Your task to perform on an android device: When is my next appointment? Image 0: 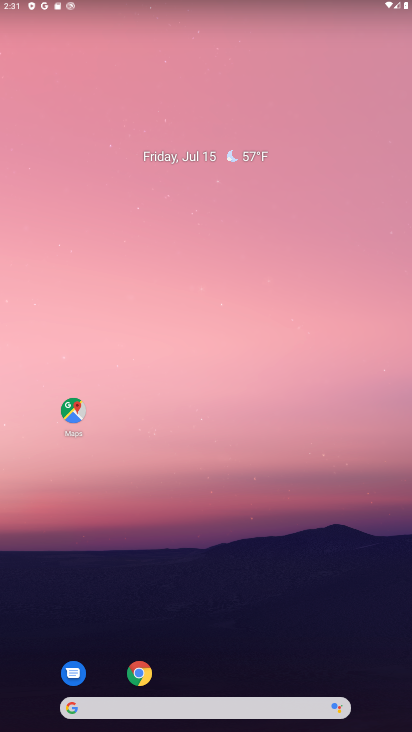
Step 0: drag from (387, 669) to (297, 201)
Your task to perform on an android device: When is my next appointment? Image 1: 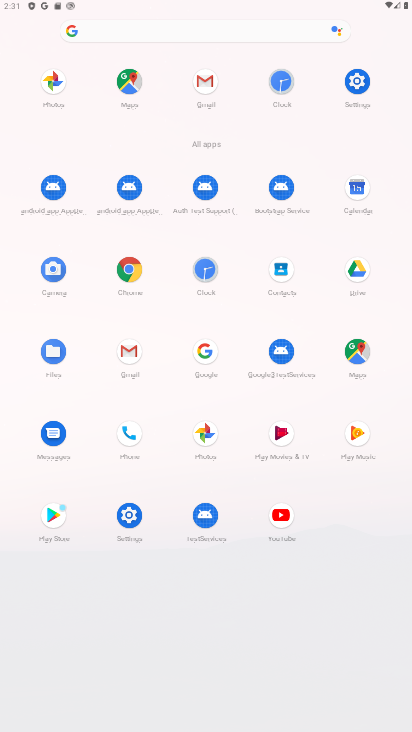
Step 1: click (359, 184)
Your task to perform on an android device: When is my next appointment? Image 2: 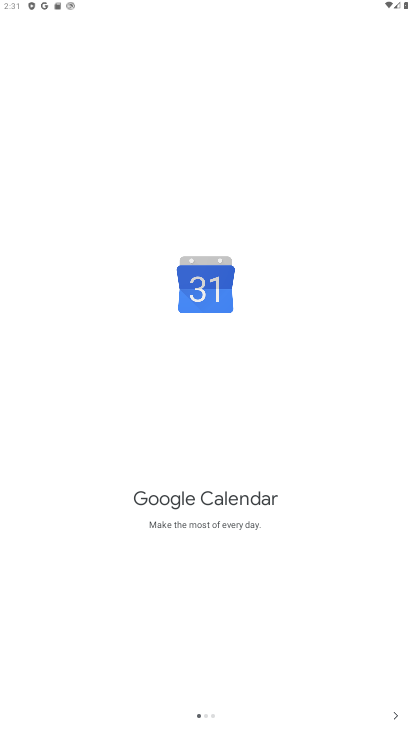
Step 2: click (394, 716)
Your task to perform on an android device: When is my next appointment? Image 3: 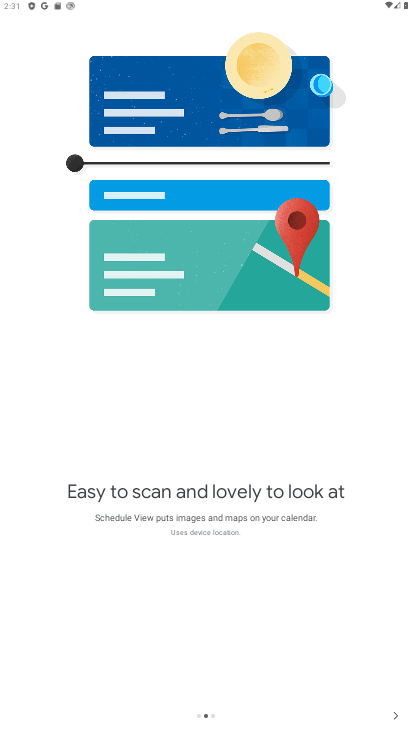
Step 3: click (394, 712)
Your task to perform on an android device: When is my next appointment? Image 4: 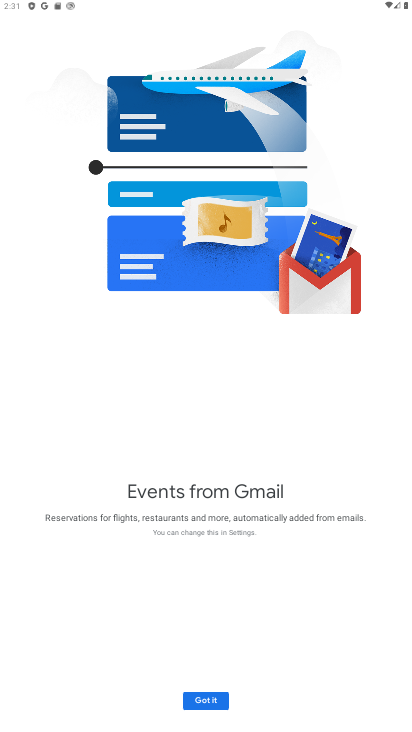
Step 4: click (205, 699)
Your task to perform on an android device: When is my next appointment? Image 5: 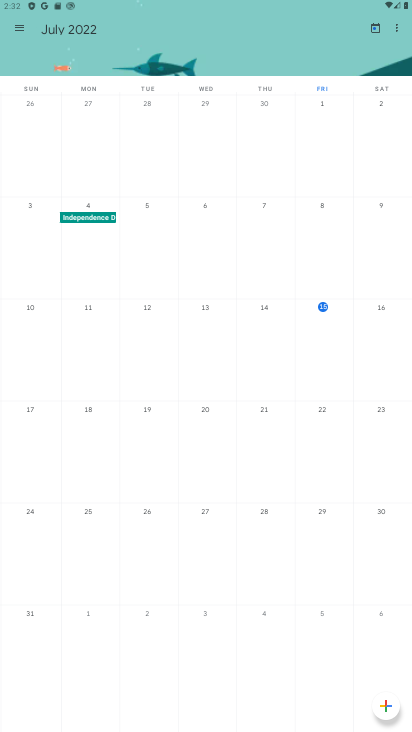
Step 5: click (14, 28)
Your task to perform on an android device: When is my next appointment? Image 6: 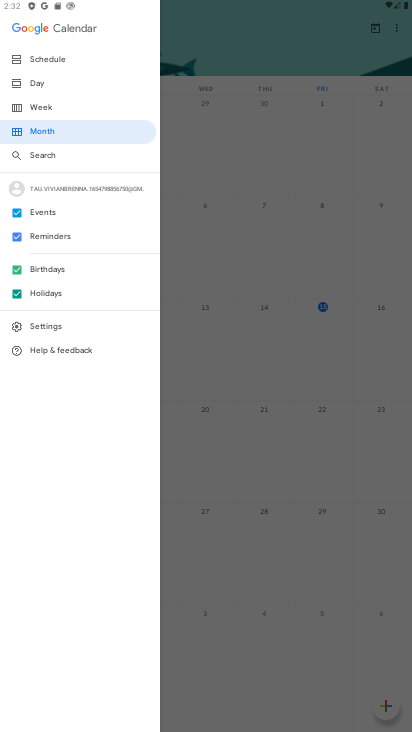
Step 6: click (43, 65)
Your task to perform on an android device: When is my next appointment? Image 7: 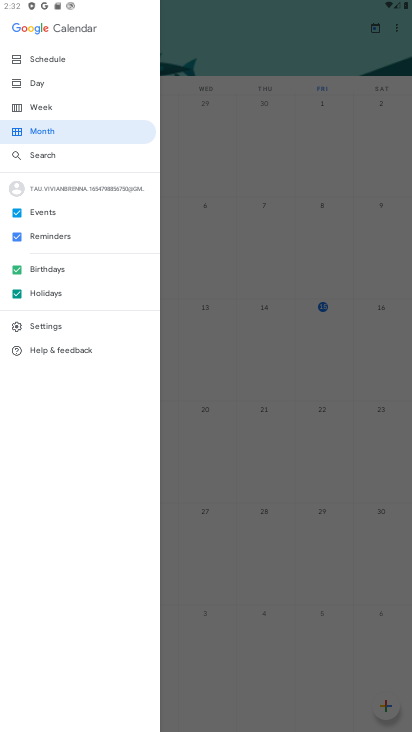
Step 7: click (39, 62)
Your task to perform on an android device: When is my next appointment? Image 8: 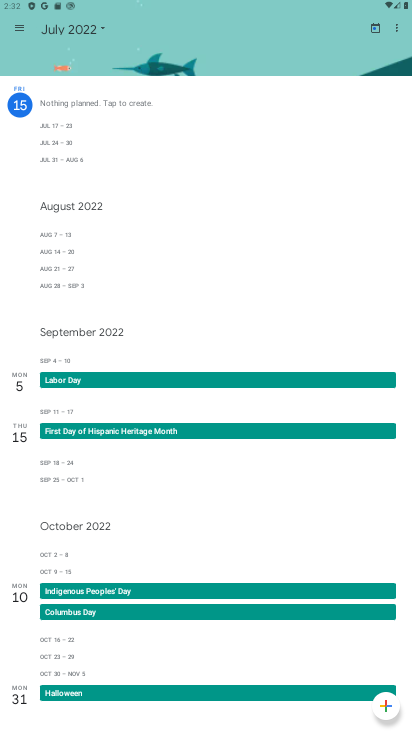
Step 8: task complete